Your task to perform on an android device: Turn off the flashlight Image 0: 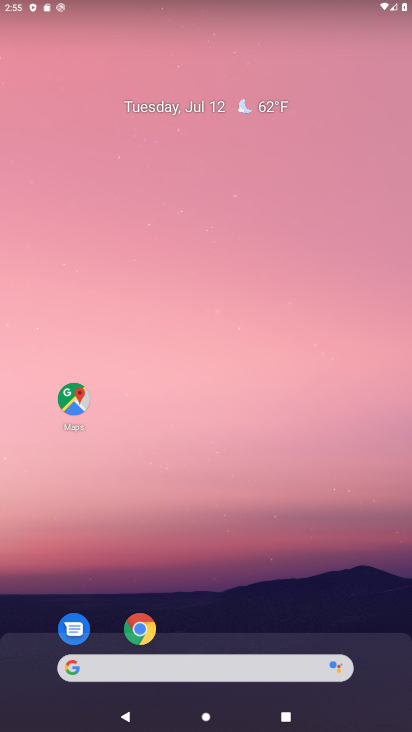
Step 0: drag from (347, 7) to (308, 546)
Your task to perform on an android device: Turn off the flashlight Image 1: 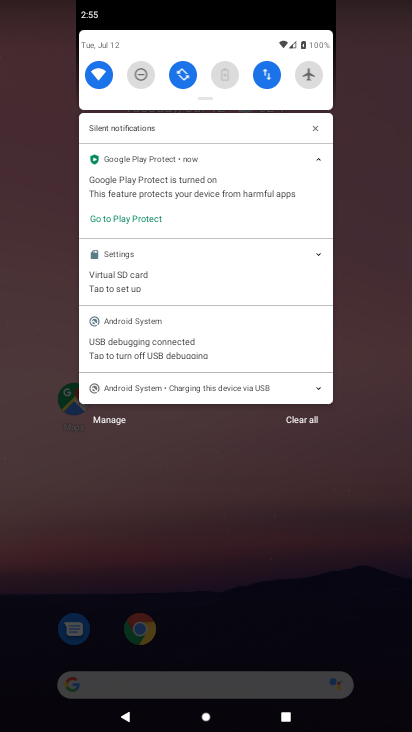
Step 1: task complete